Your task to perform on an android device: toggle sleep mode Image 0: 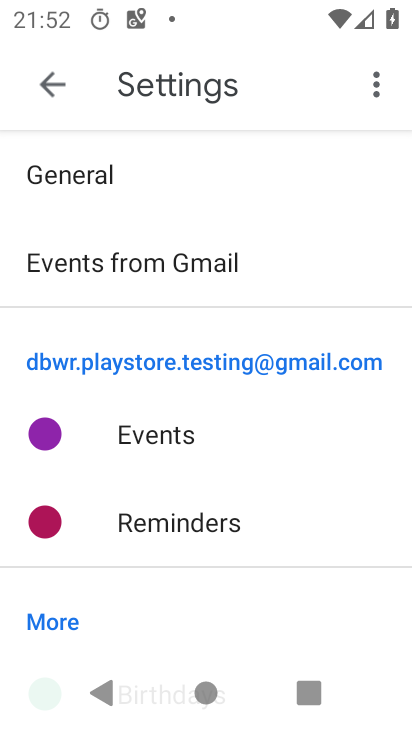
Step 0: press home button
Your task to perform on an android device: toggle sleep mode Image 1: 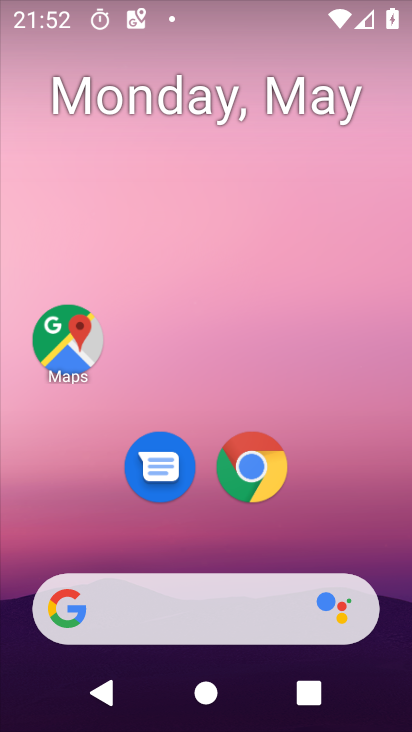
Step 1: drag from (249, 601) to (280, 34)
Your task to perform on an android device: toggle sleep mode Image 2: 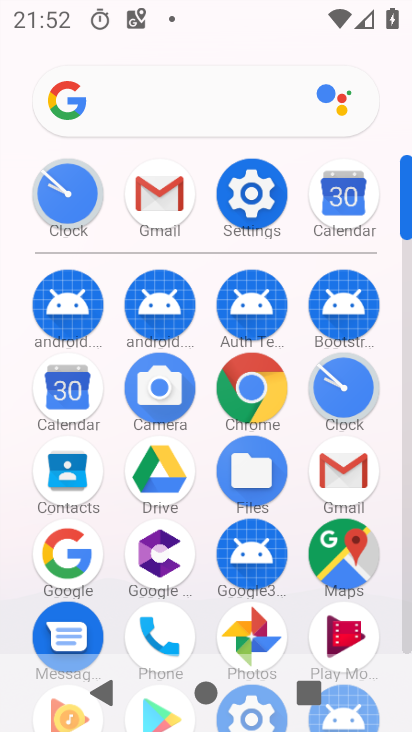
Step 2: click (243, 200)
Your task to perform on an android device: toggle sleep mode Image 3: 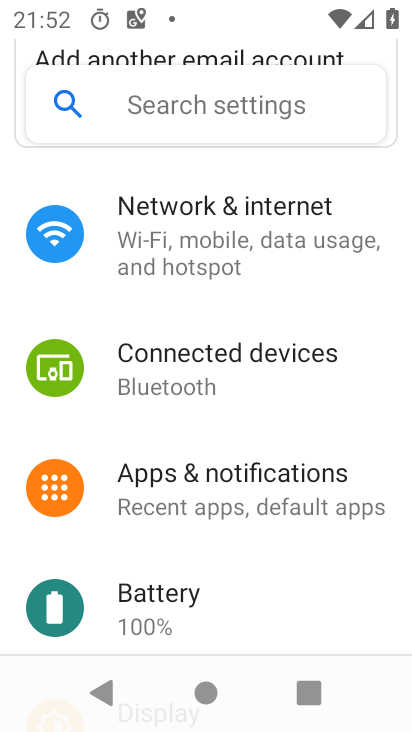
Step 3: click (180, 97)
Your task to perform on an android device: toggle sleep mode Image 4: 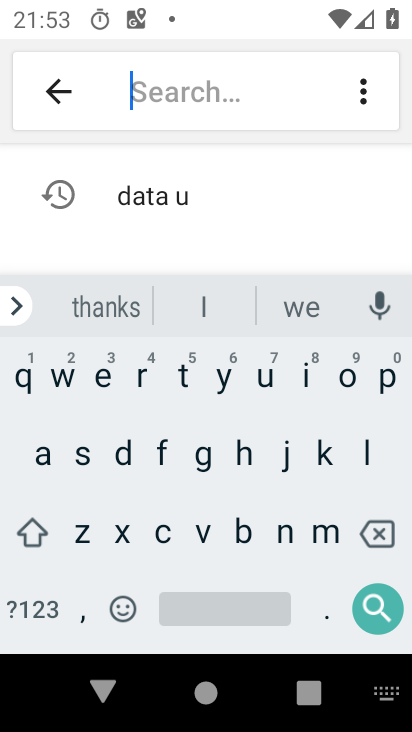
Step 4: click (86, 460)
Your task to perform on an android device: toggle sleep mode Image 5: 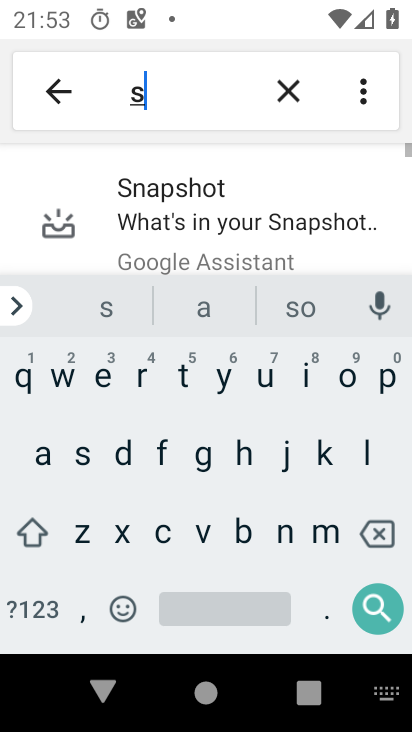
Step 5: click (373, 455)
Your task to perform on an android device: toggle sleep mode Image 6: 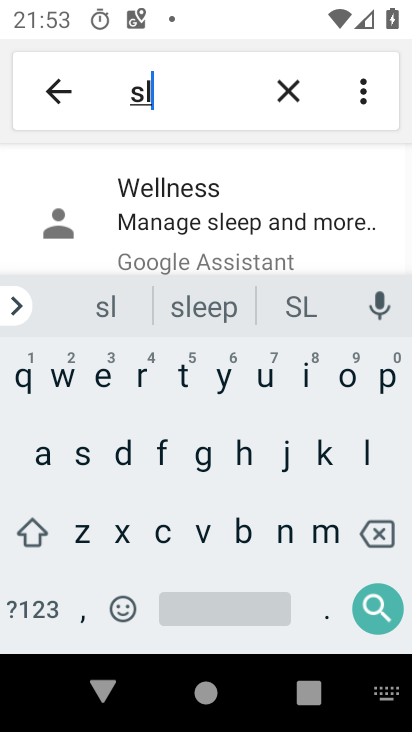
Step 6: click (179, 198)
Your task to perform on an android device: toggle sleep mode Image 7: 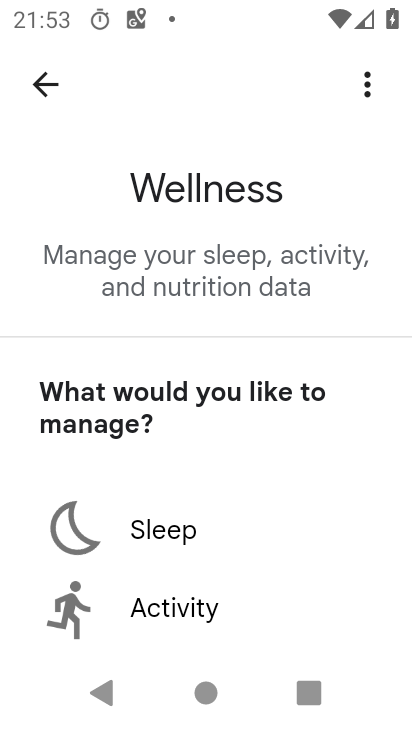
Step 7: click (152, 525)
Your task to perform on an android device: toggle sleep mode Image 8: 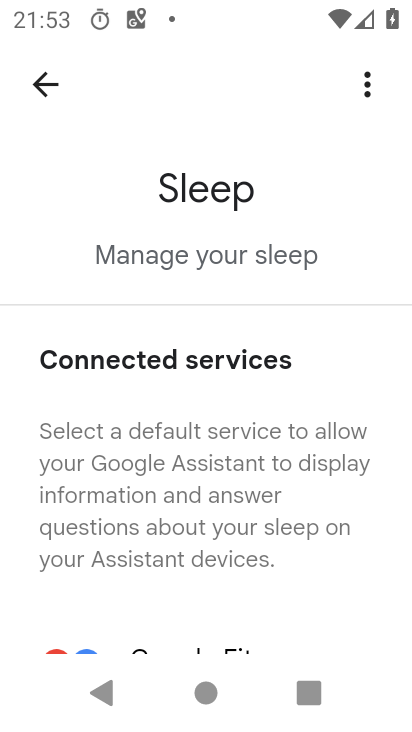
Step 8: task complete